Your task to perform on an android device: turn off location history Image 0: 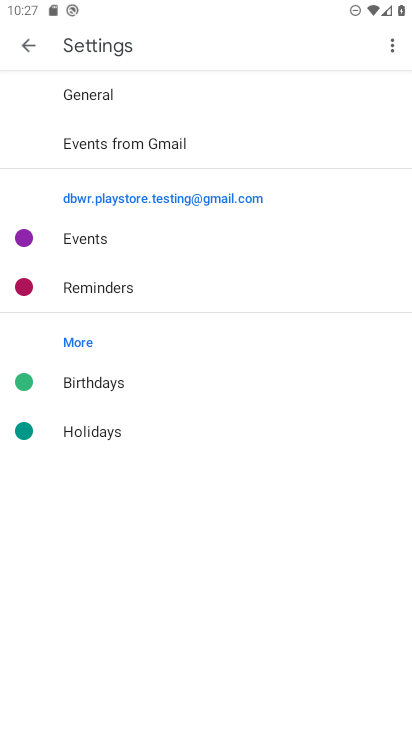
Step 0: press back button
Your task to perform on an android device: turn off location history Image 1: 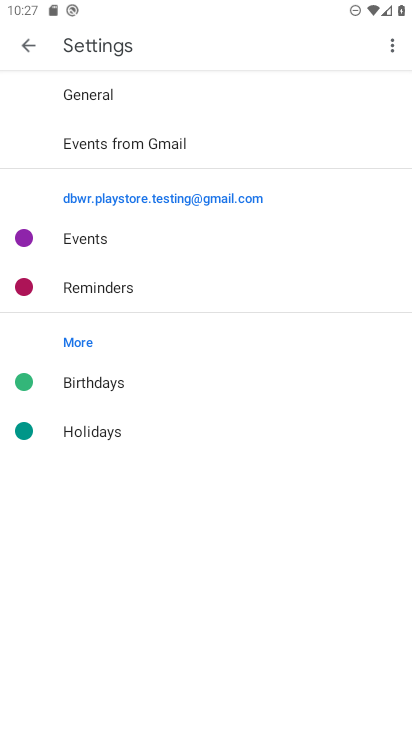
Step 1: press back button
Your task to perform on an android device: turn off location history Image 2: 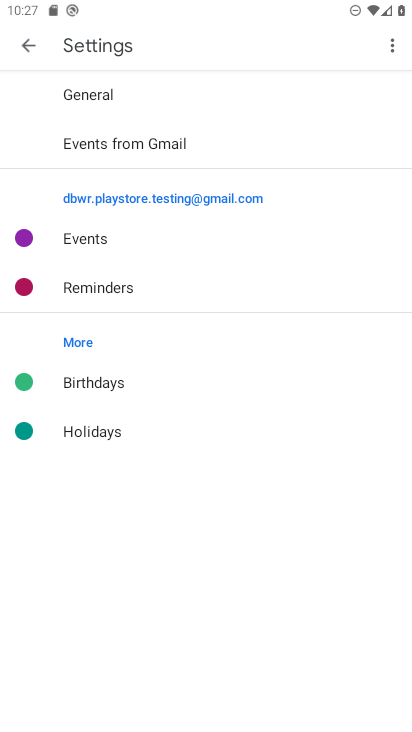
Step 2: press back button
Your task to perform on an android device: turn off location history Image 3: 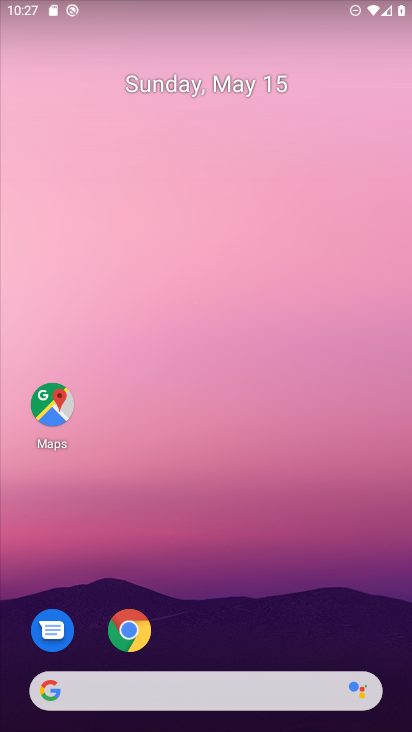
Step 3: drag from (279, 590) to (324, 13)
Your task to perform on an android device: turn off location history Image 4: 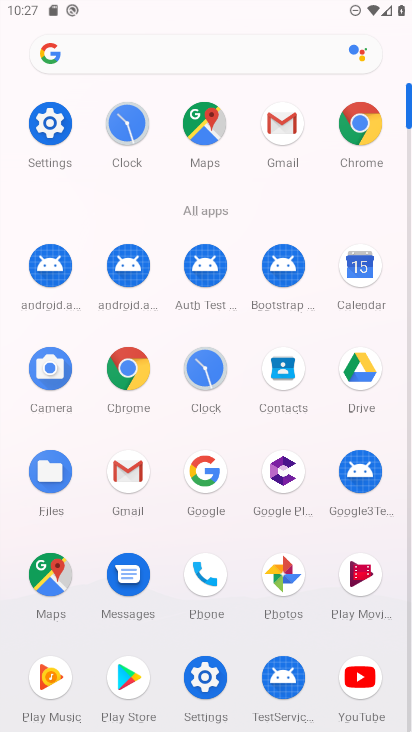
Step 4: click (53, 116)
Your task to perform on an android device: turn off location history Image 5: 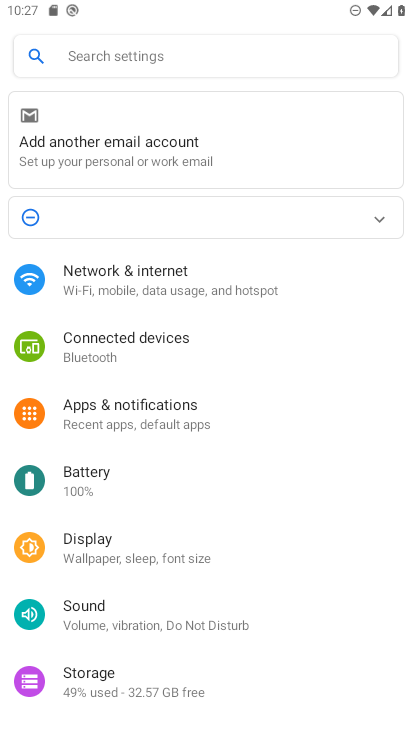
Step 5: drag from (142, 638) to (228, 204)
Your task to perform on an android device: turn off location history Image 6: 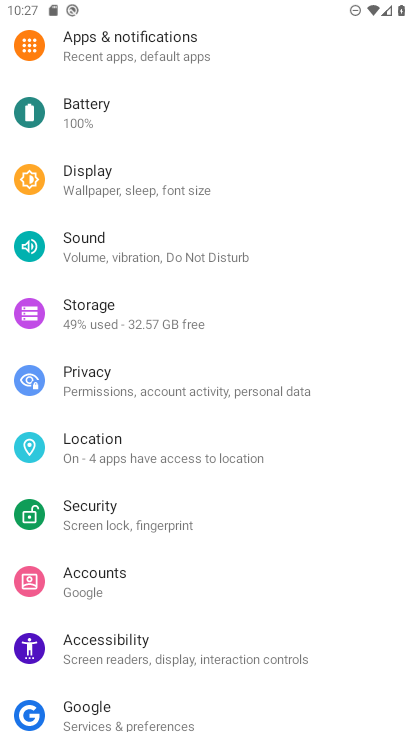
Step 6: click (105, 439)
Your task to perform on an android device: turn off location history Image 7: 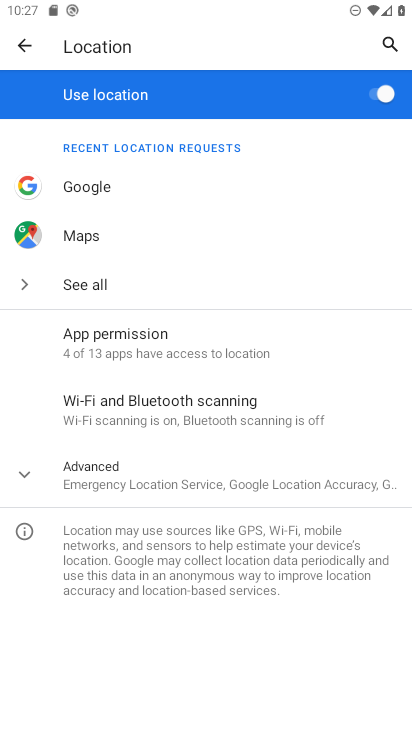
Step 7: click (138, 473)
Your task to perform on an android device: turn off location history Image 8: 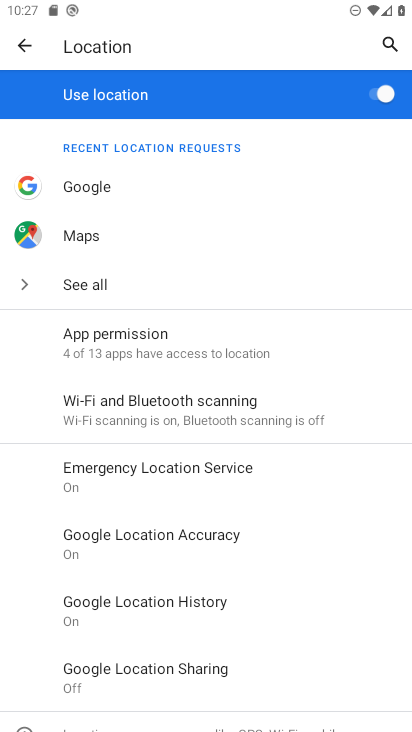
Step 8: click (143, 604)
Your task to perform on an android device: turn off location history Image 9: 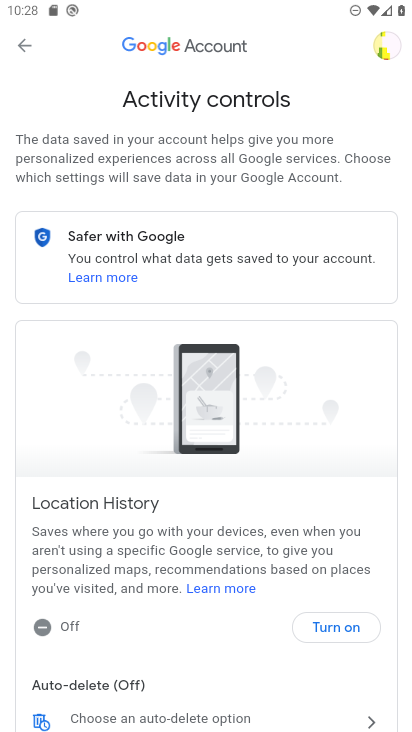
Step 9: task complete